Your task to perform on an android device: turn off notifications in google photos Image 0: 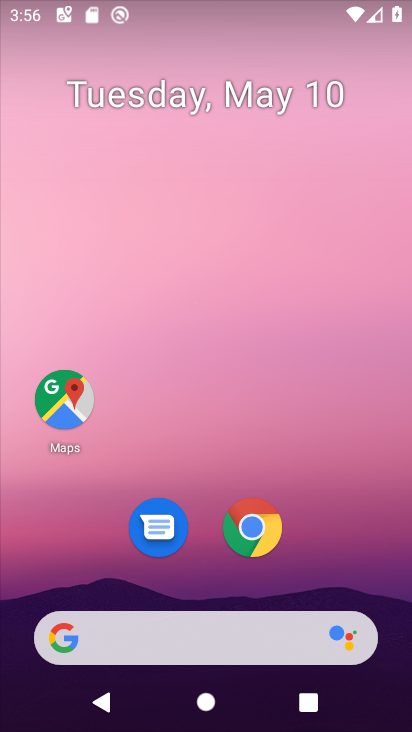
Step 0: drag from (390, 534) to (384, 324)
Your task to perform on an android device: turn off notifications in google photos Image 1: 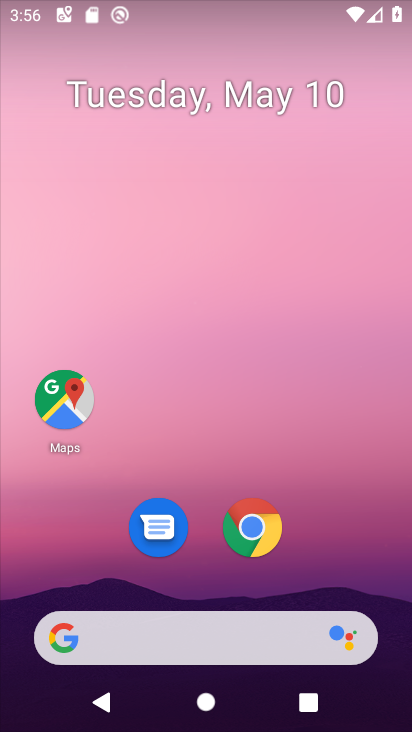
Step 1: drag from (399, 535) to (389, 221)
Your task to perform on an android device: turn off notifications in google photos Image 2: 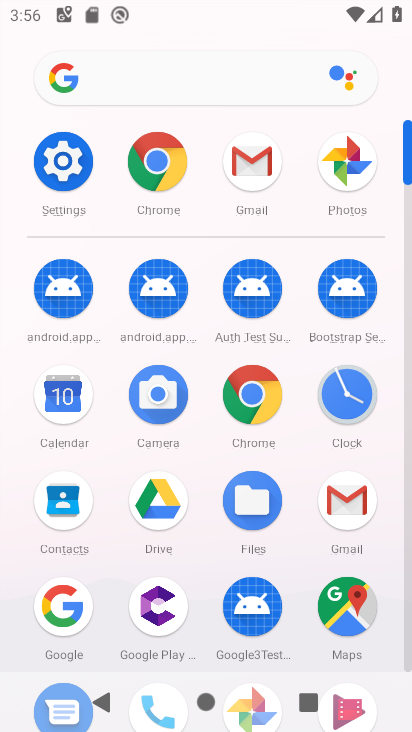
Step 2: click (352, 162)
Your task to perform on an android device: turn off notifications in google photos Image 3: 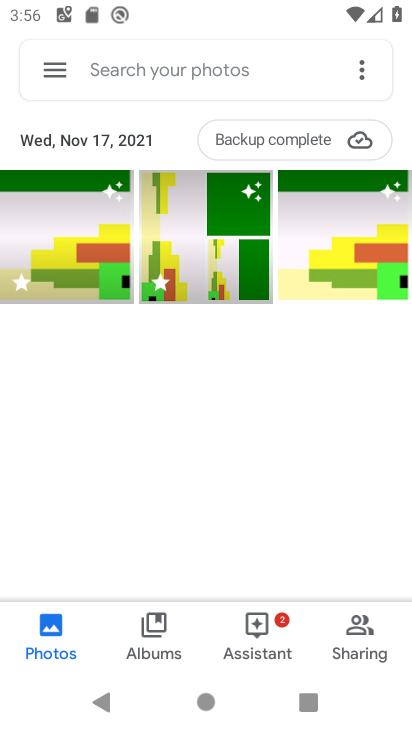
Step 3: click (44, 67)
Your task to perform on an android device: turn off notifications in google photos Image 4: 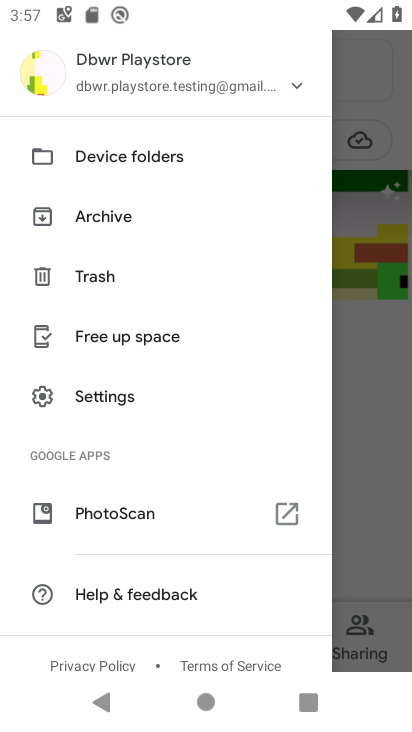
Step 4: drag from (189, 562) to (198, 355)
Your task to perform on an android device: turn off notifications in google photos Image 5: 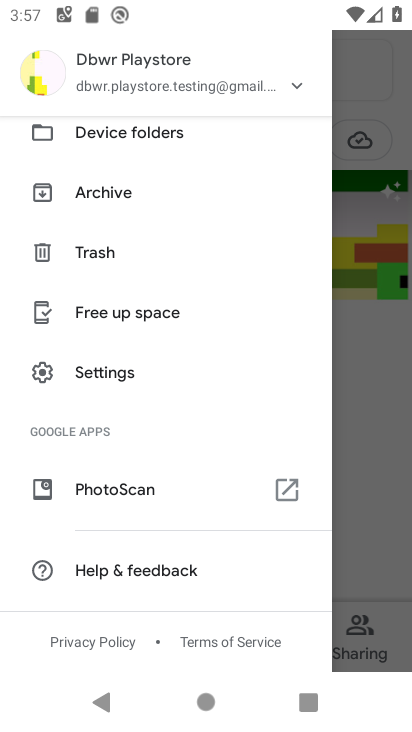
Step 5: click (104, 372)
Your task to perform on an android device: turn off notifications in google photos Image 6: 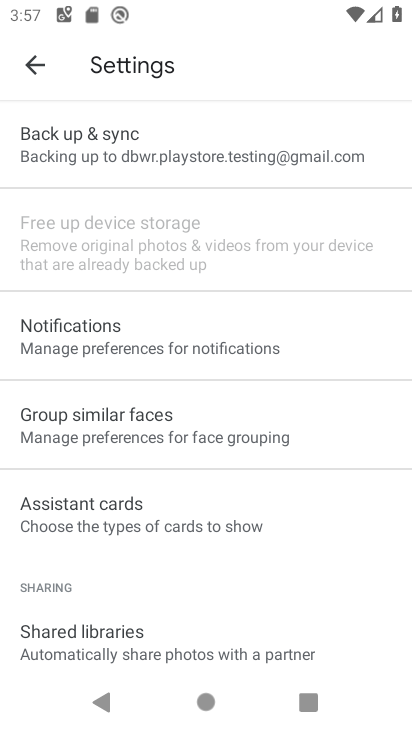
Step 6: click (92, 340)
Your task to perform on an android device: turn off notifications in google photos Image 7: 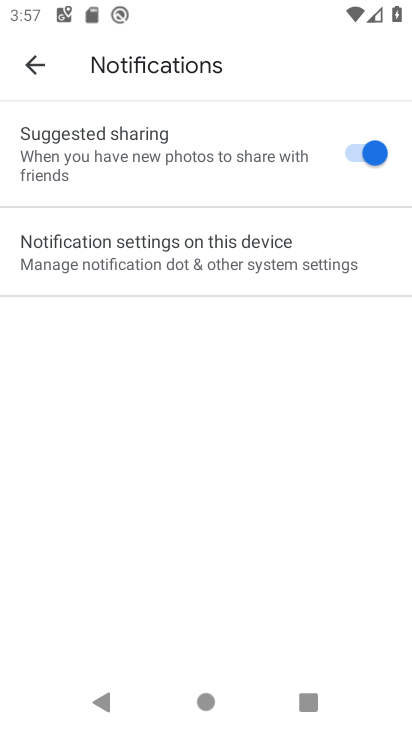
Step 7: click (355, 158)
Your task to perform on an android device: turn off notifications in google photos Image 8: 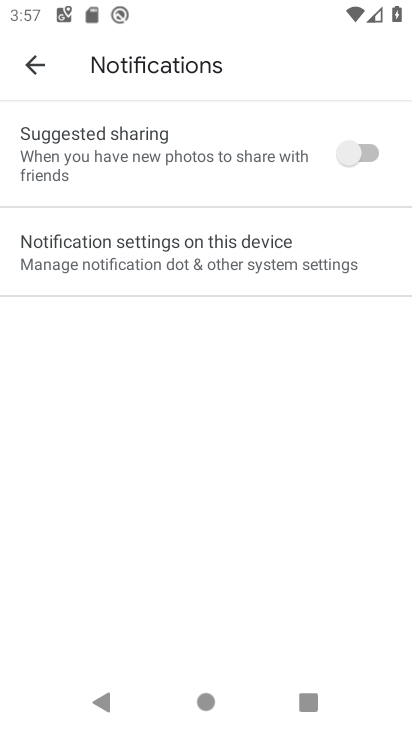
Step 8: task complete